Your task to perform on an android device: turn notification dots off Image 0: 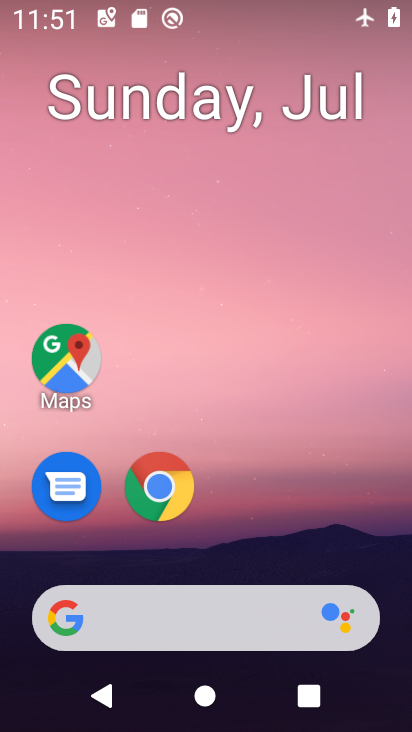
Step 0: press home button
Your task to perform on an android device: turn notification dots off Image 1: 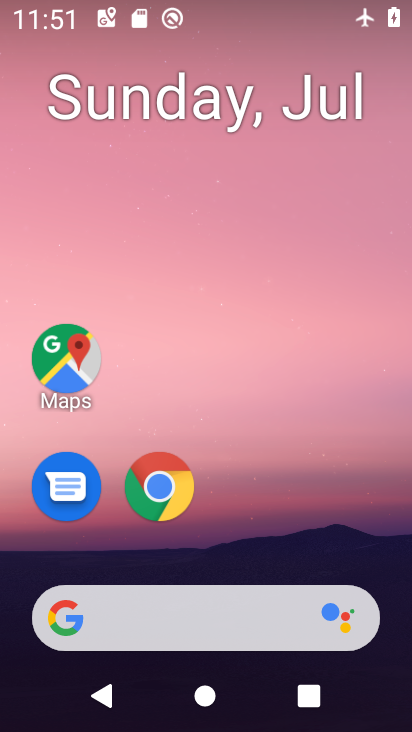
Step 1: drag from (353, 529) to (350, 111)
Your task to perform on an android device: turn notification dots off Image 2: 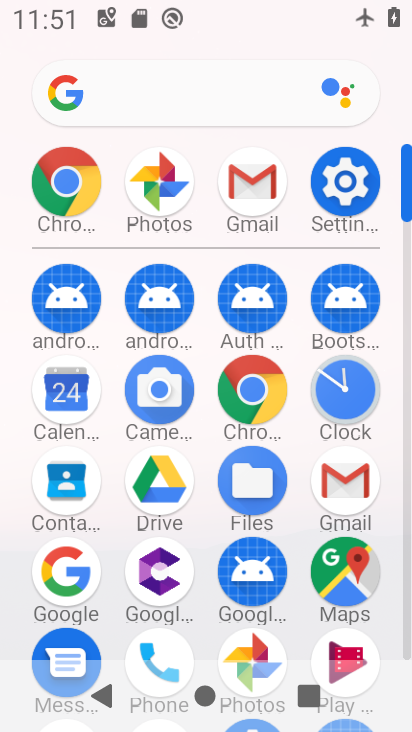
Step 2: click (339, 181)
Your task to perform on an android device: turn notification dots off Image 3: 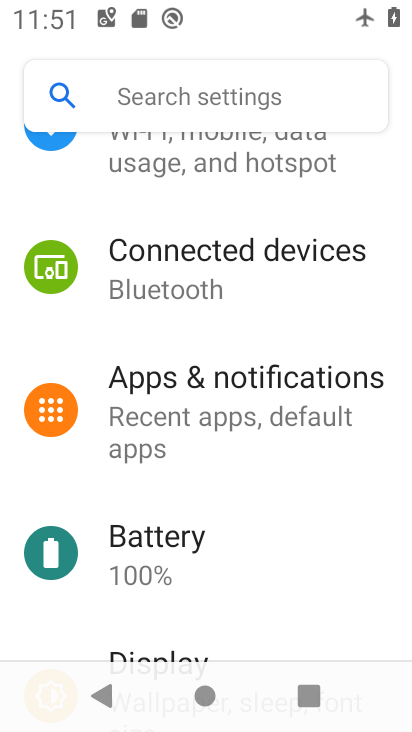
Step 3: drag from (347, 521) to (346, 322)
Your task to perform on an android device: turn notification dots off Image 4: 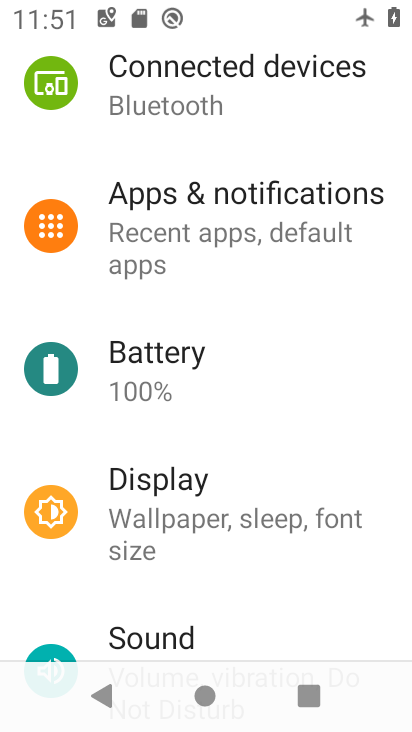
Step 4: drag from (317, 621) to (322, 387)
Your task to perform on an android device: turn notification dots off Image 5: 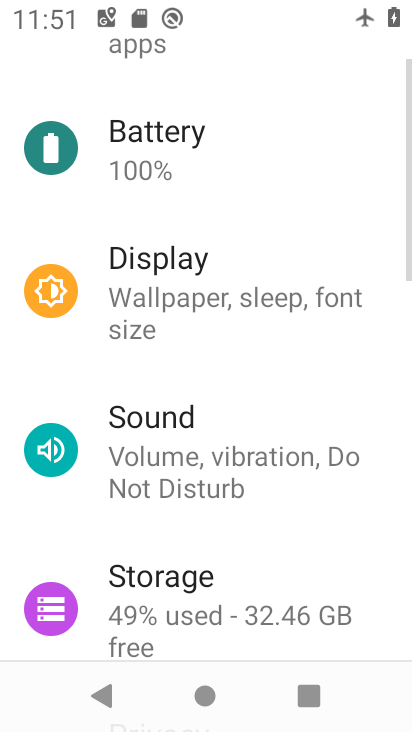
Step 5: drag from (330, 569) to (311, 311)
Your task to perform on an android device: turn notification dots off Image 6: 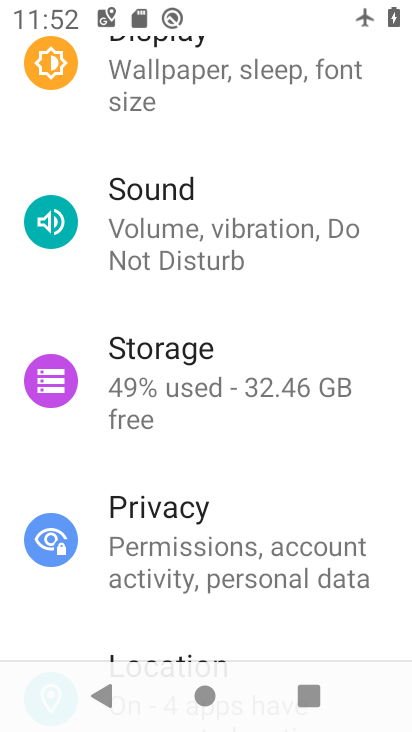
Step 6: drag from (324, 460) to (332, 326)
Your task to perform on an android device: turn notification dots off Image 7: 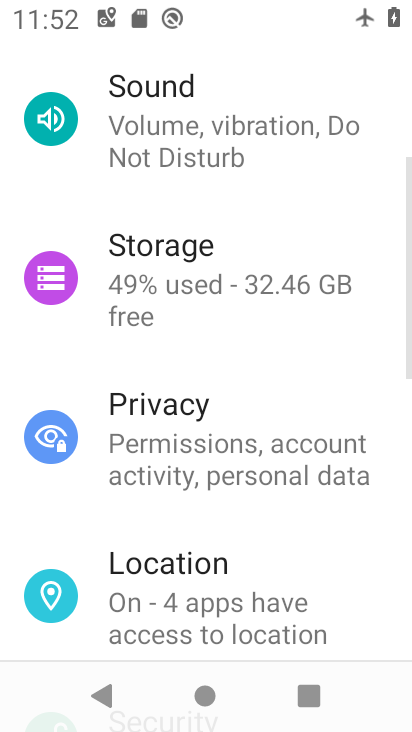
Step 7: drag from (346, 558) to (335, 361)
Your task to perform on an android device: turn notification dots off Image 8: 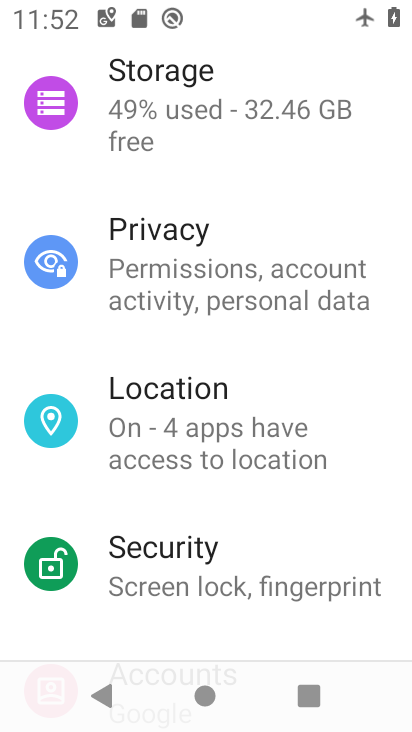
Step 8: drag from (372, 612) to (373, 464)
Your task to perform on an android device: turn notification dots off Image 9: 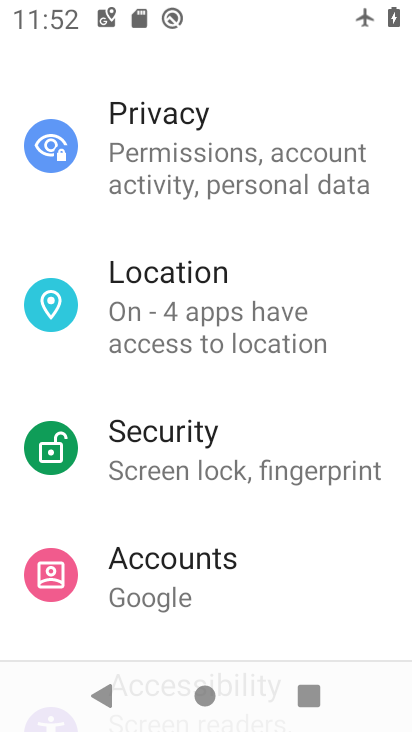
Step 9: drag from (376, 327) to (387, 417)
Your task to perform on an android device: turn notification dots off Image 10: 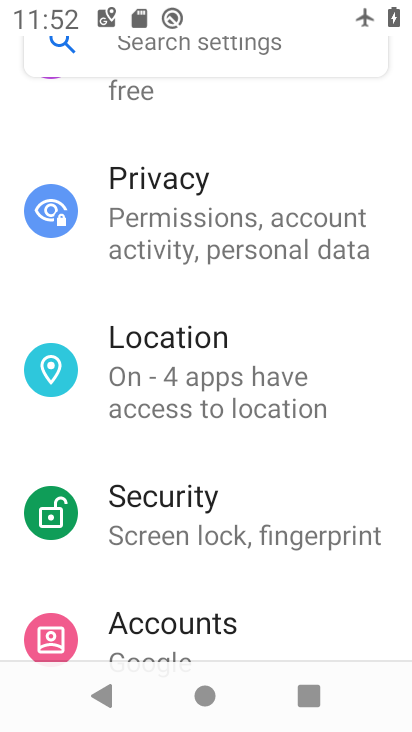
Step 10: drag from (353, 297) to (354, 426)
Your task to perform on an android device: turn notification dots off Image 11: 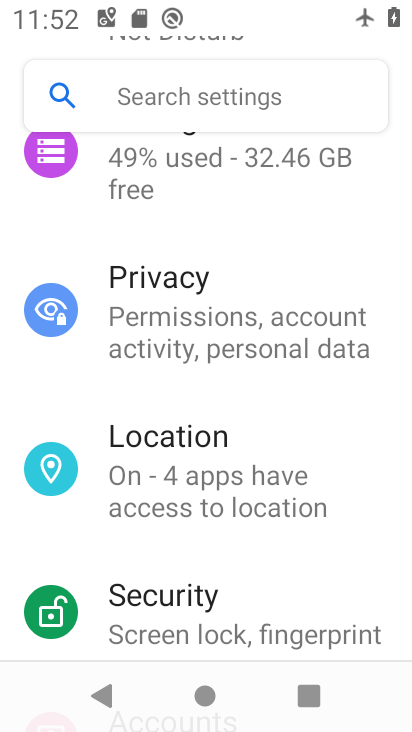
Step 11: drag from (341, 197) to (338, 347)
Your task to perform on an android device: turn notification dots off Image 12: 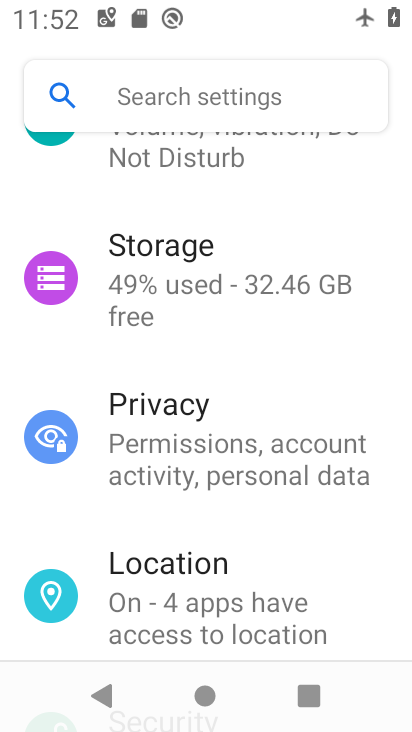
Step 12: drag from (346, 236) to (337, 313)
Your task to perform on an android device: turn notification dots off Image 13: 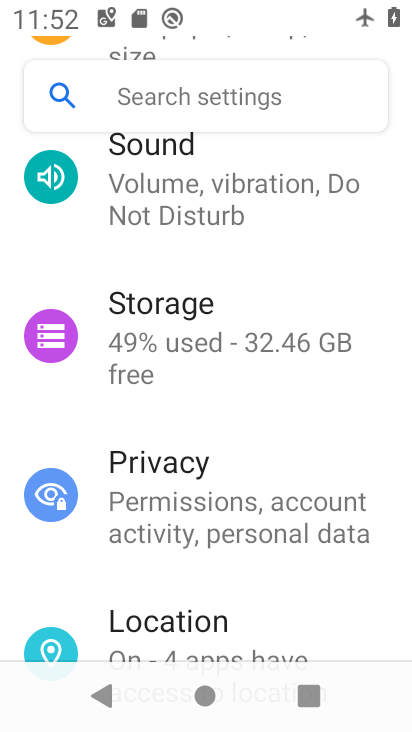
Step 13: drag from (359, 185) to (359, 320)
Your task to perform on an android device: turn notification dots off Image 14: 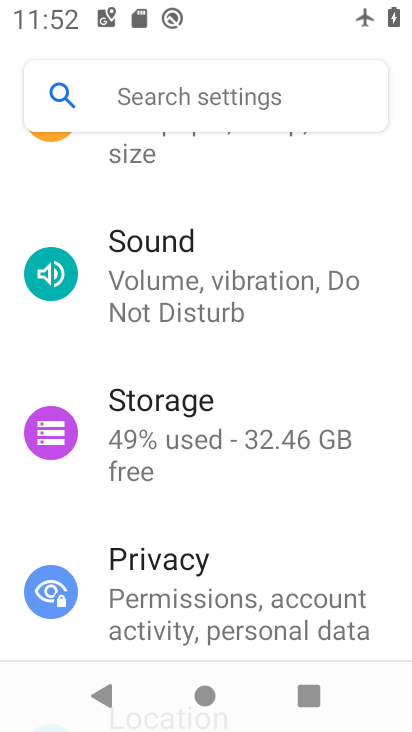
Step 14: drag from (353, 192) to (351, 339)
Your task to perform on an android device: turn notification dots off Image 15: 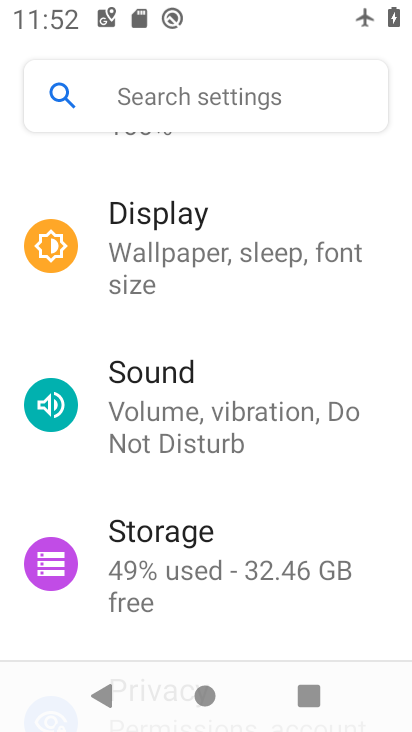
Step 15: drag from (346, 185) to (343, 344)
Your task to perform on an android device: turn notification dots off Image 16: 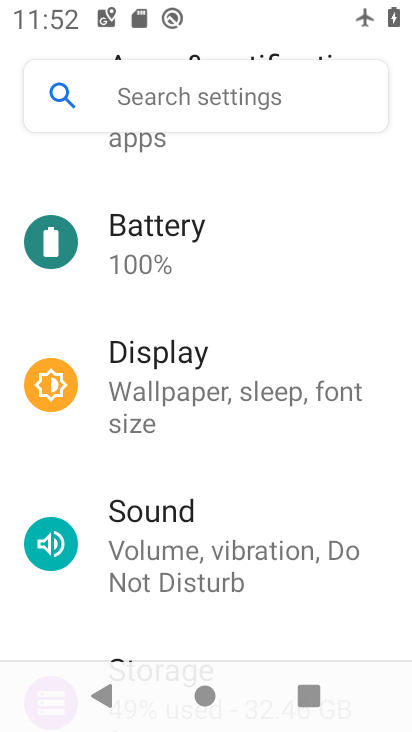
Step 16: drag from (329, 179) to (329, 298)
Your task to perform on an android device: turn notification dots off Image 17: 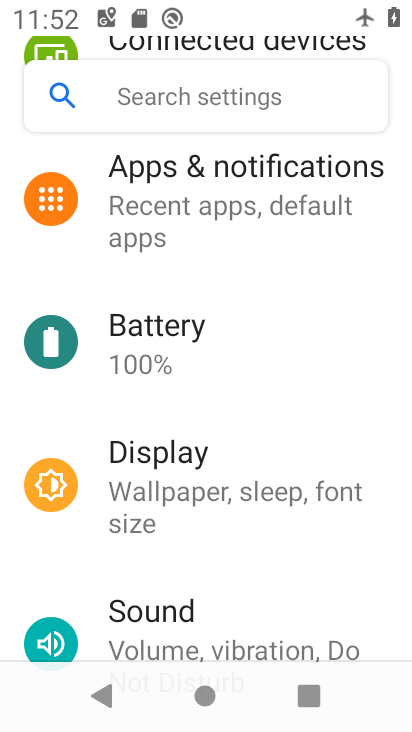
Step 17: click (298, 206)
Your task to perform on an android device: turn notification dots off Image 18: 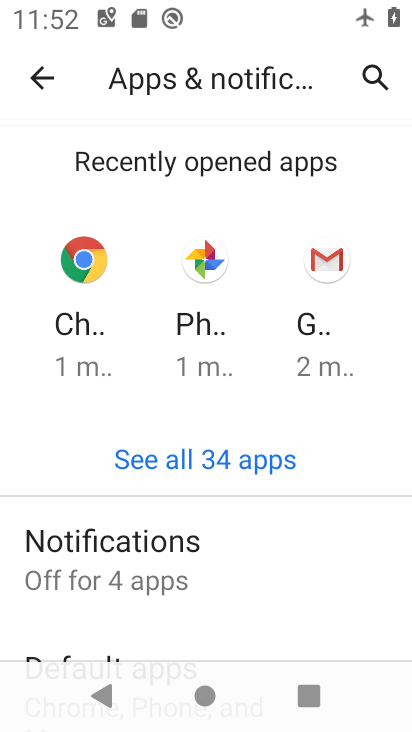
Step 18: drag from (274, 501) to (256, 343)
Your task to perform on an android device: turn notification dots off Image 19: 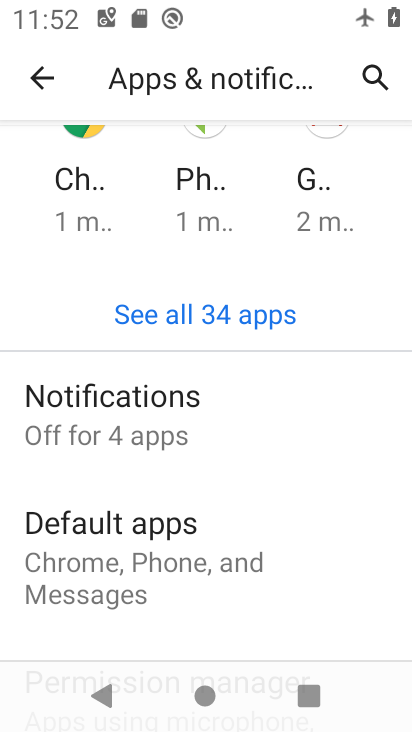
Step 19: drag from (258, 452) to (247, 355)
Your task to perform on an android device: turn notification dots off Image 20: 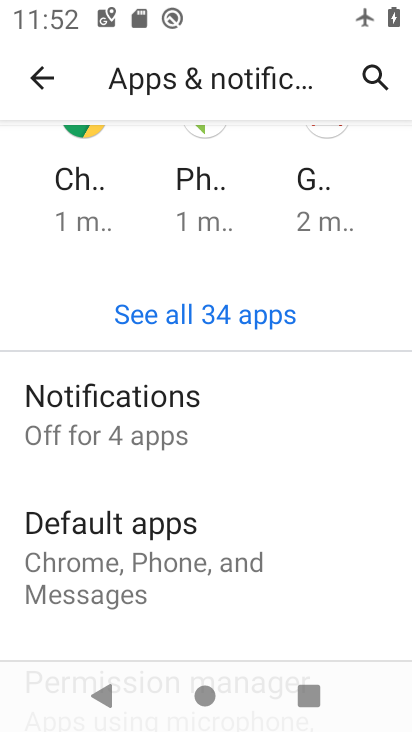
Step 20: click (172, 410)
Your task to perform on an android device: turn notification dots off Image 21: 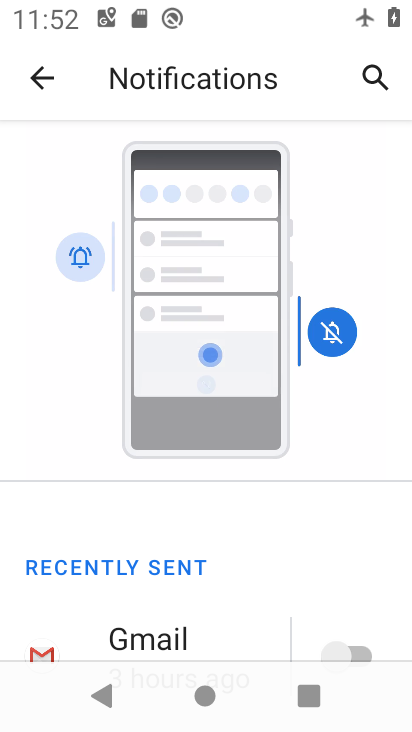
Step 21: drag from (283, 543) to (283, 406)
Your task to perform on an android device: turn notification dots off Image 22: 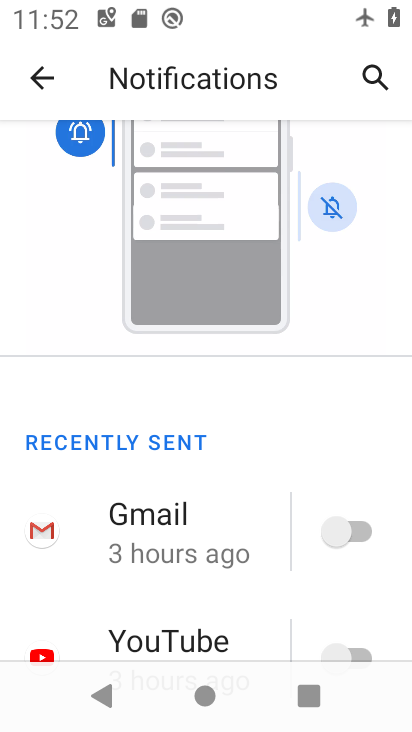
Step 22: drag from (254, 550) to (244, 387)
Your task to perform on an android device: turn notification dots off Image 23: 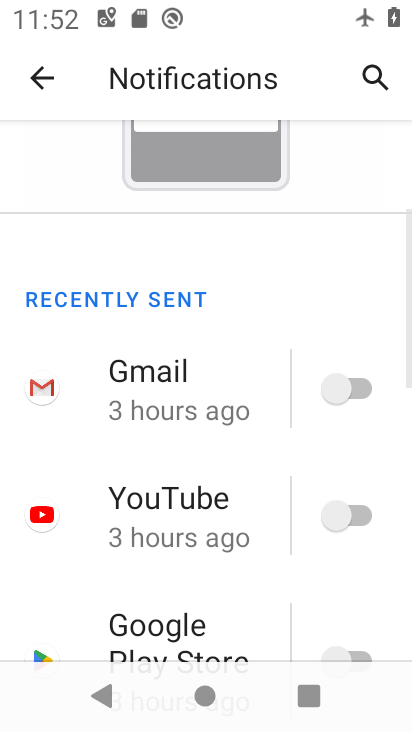
Step 23: drag from (239, 526) to (234, 326)
Your task to perform on an android device: turn notification dots off Image 24: 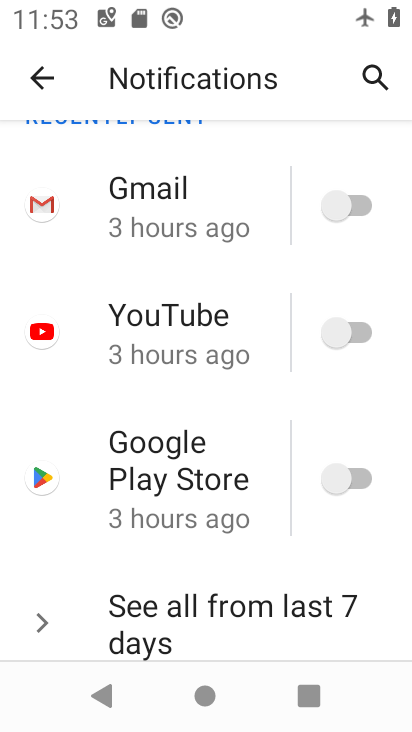
Step 24: drag from (264, 523) to (256, 329)
Your task to perform on an android device: turn notification dots off Image 25: 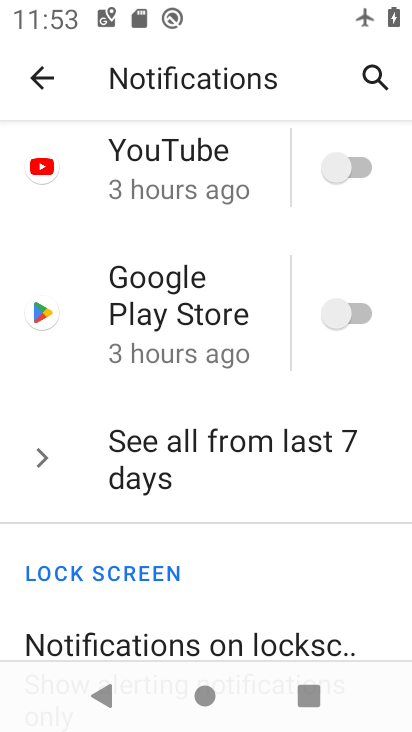
Step 25: drag from (247, 553) to (243, 389)
Your task to perform on an android device: turn notification dots off Image 26: 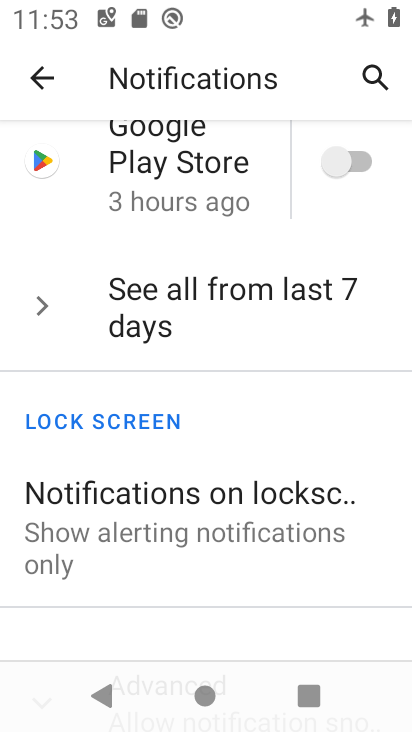
Step 26: drag from (225, 586) to (216, 424)
Your task to perform on an android device: turn notification dots off Image 27: 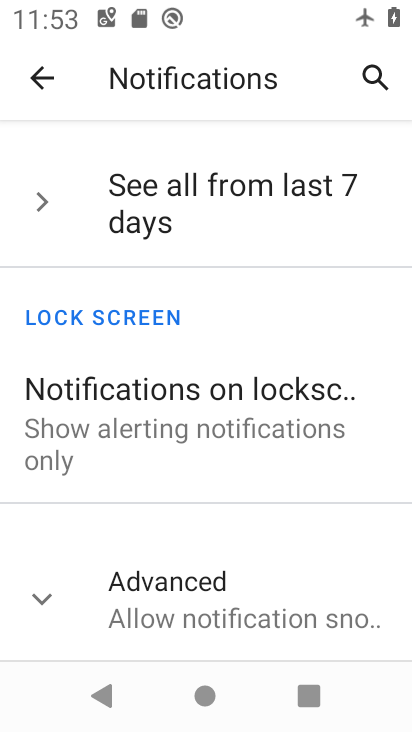
Step 27: drag from (219, 610) to (222, 439)
Your task to perform on an android device: turn notification dots off Image 28: 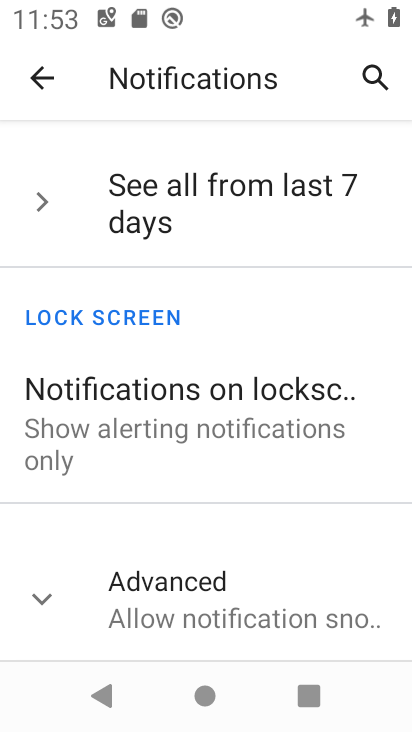
Step 28: click (219, 592)
Your task to perform on an android device: turn notification dots off Image 29: 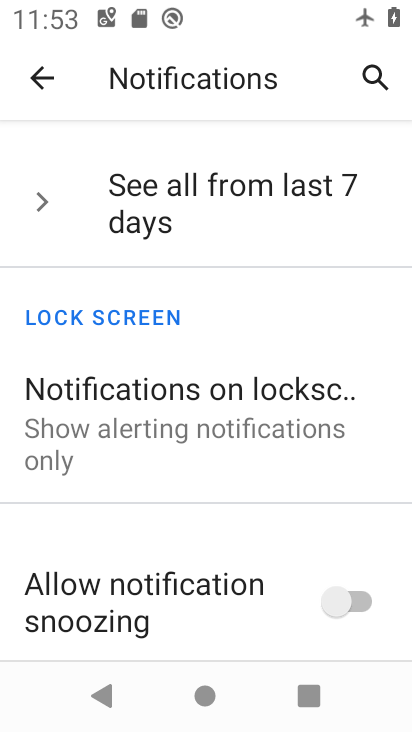
Step 29: drag from (211, 617) to (218, 494)
Your task to perform on an android device: turn notification dots off Image 30: 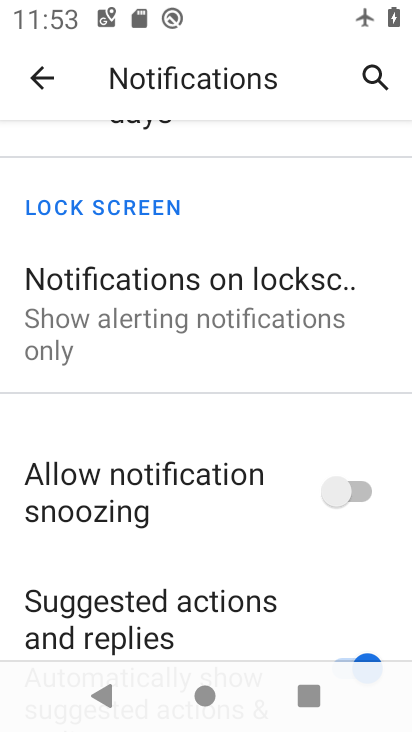
Step 30: drag from (250, 631) to (254, 501)
Your task to perform on an android device: turn notification dots off Image 31: 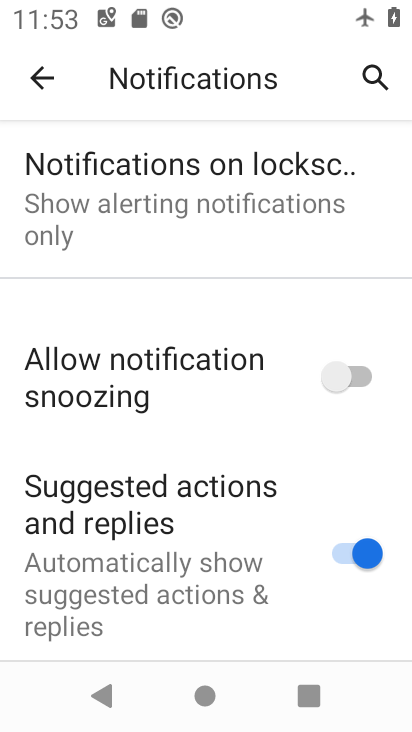
Step 31: drag from (270, 599) to (254, 442)
Your task to perform on an android device: turn notification dots off Image 32: 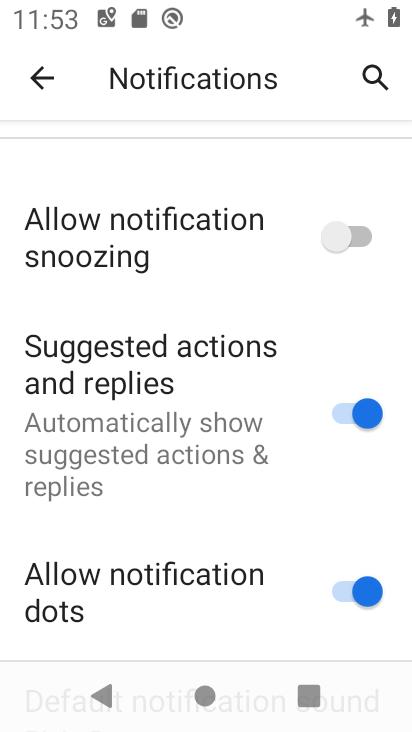
Step 32: drag from (245, 633) to (229, 504)
Your task to perform on an android device: turn notification dots off Image 33: 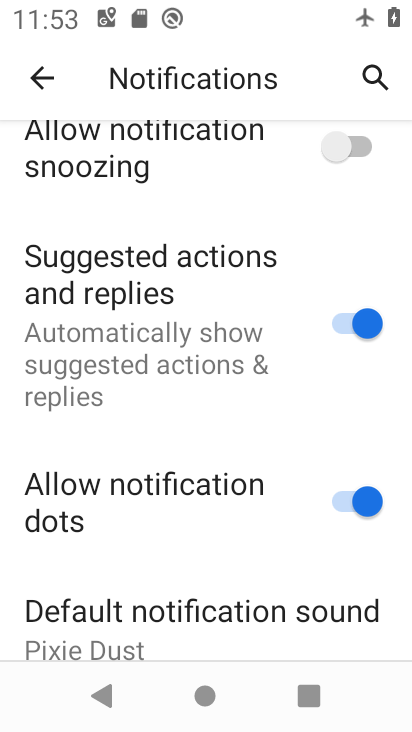
Step 33: click (367, 493)
Your task to perform on an android device: turn notification dots off Image 34: 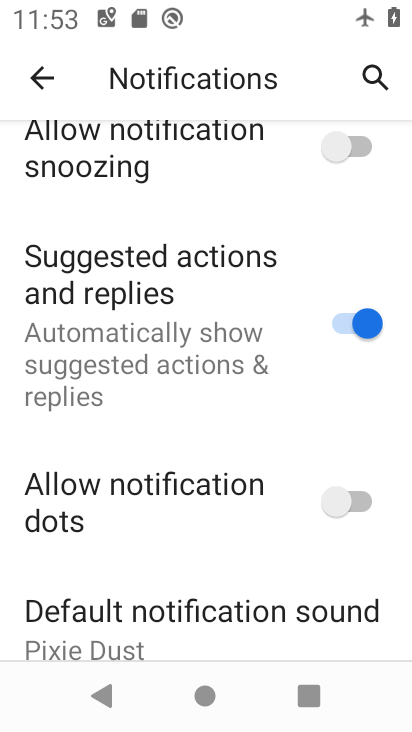
Step 34: task complete